Your task to perform on an android device: Do I have any events this weekend? Image 0: 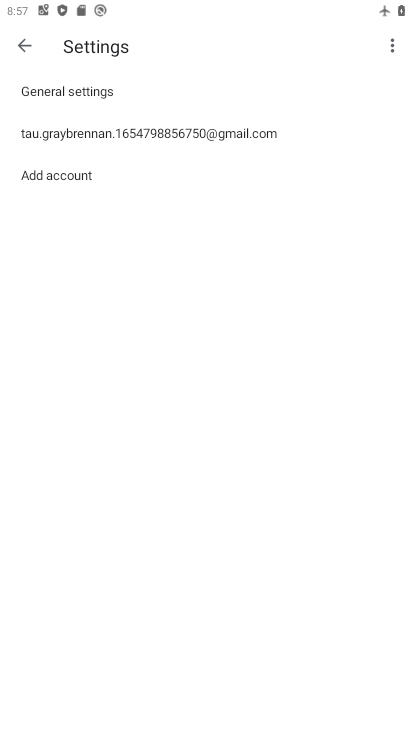
Step 0: press home button
Your task to perform on an android device: Do I have any events this weekend? Image 1: 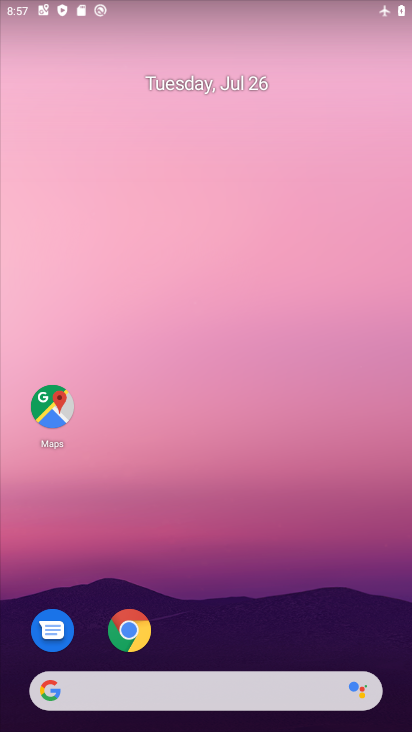
Step 1: drag from (305, 622) to (174, 6)
Your task to perform on an android device: Do I have any events this weekend? Image 2: 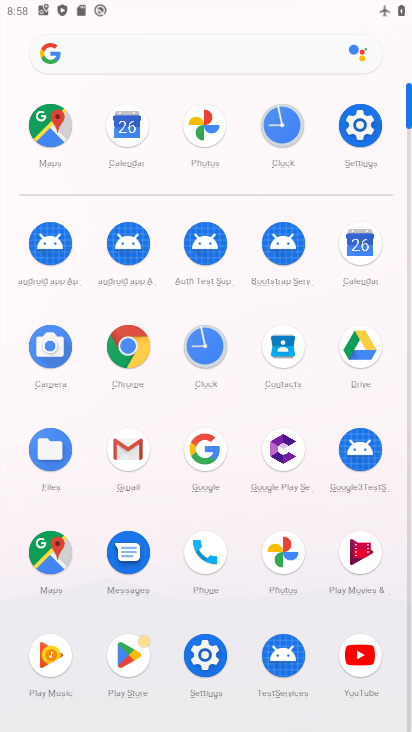
Step 2: click (353, 258)
Your task to perform on an android device: Do I have any events this weekend? Image 3: 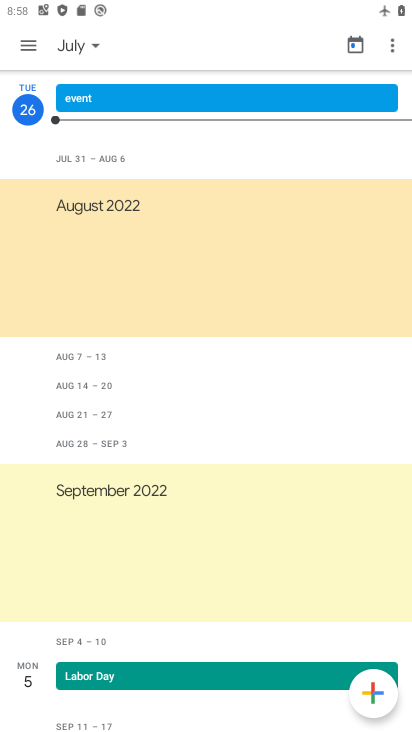
Step 3: task complete